Your task to perform on an android device: Open Reddit.com Image 0: 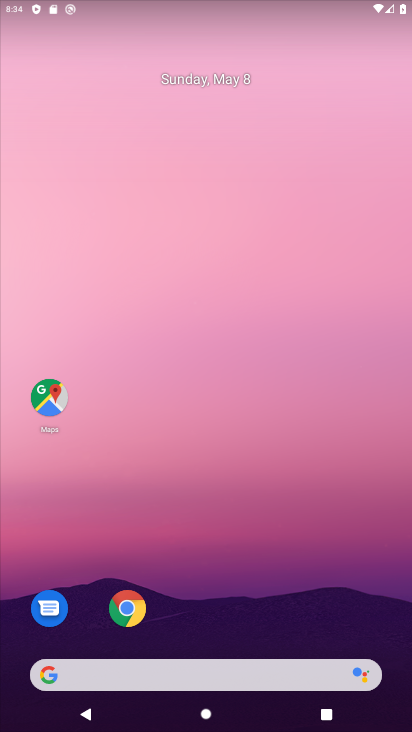
Step 0: click (126, 609)
Your task to perform on an android device: Open Reddit.com Image 1: 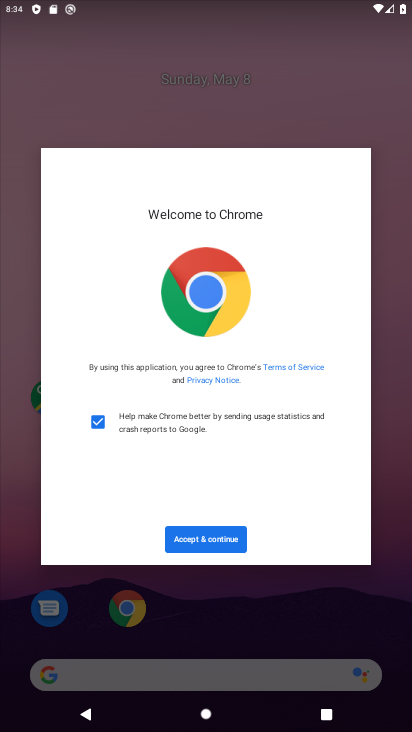
Step 1: click (194, 545)
Your task to perform on an android device: Open Reddit.com Image 2: 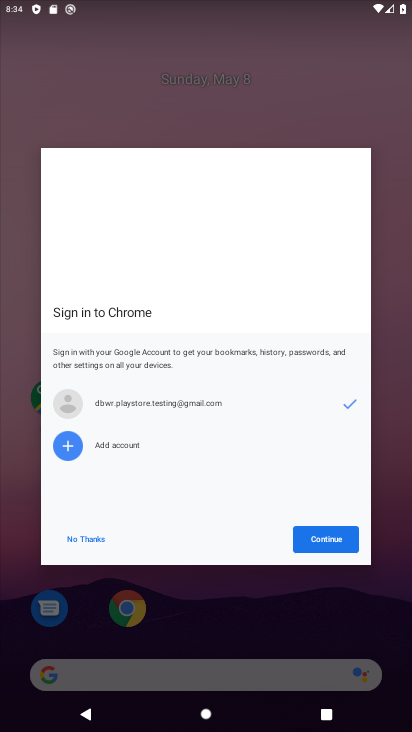
Step 2: click (329, 542)
Your task to perform on an android device: Open Reddit.com Image 3: 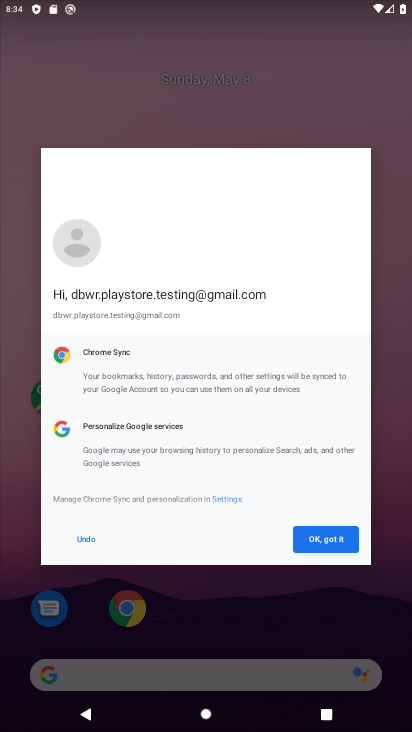
Step 3: click (329, 542)
Your task to perform on an android device: Open Reddit.com Image 4: 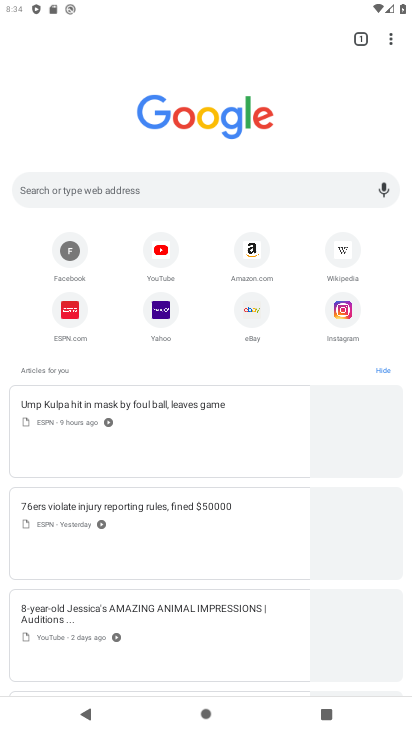
Step 4: click (156, 182)
Your task to perform on an android device: Open Reddit.com Image 5: 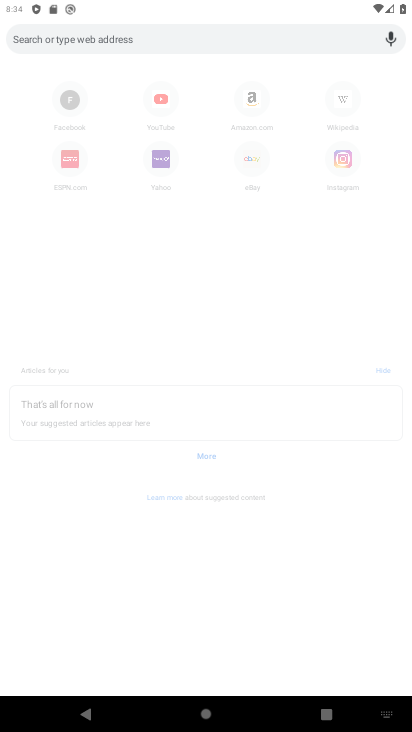
Step 5: type "Reddit.com"
Your task to perform on an android device: Open Reddit.com Image 6: 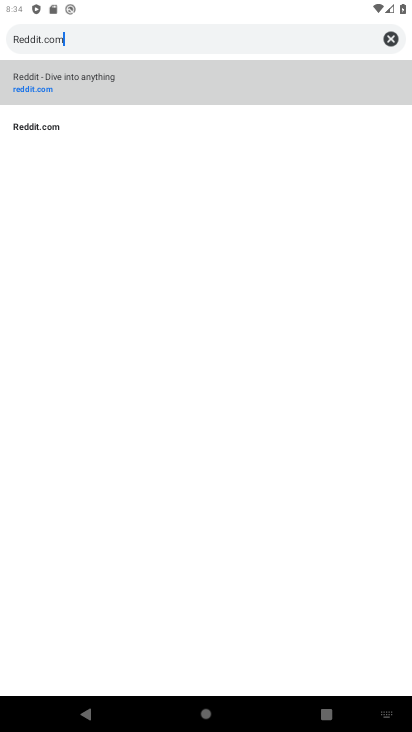
Step 6: type ""
Your task to perform on an android device: Open Reddit.com Image 7: 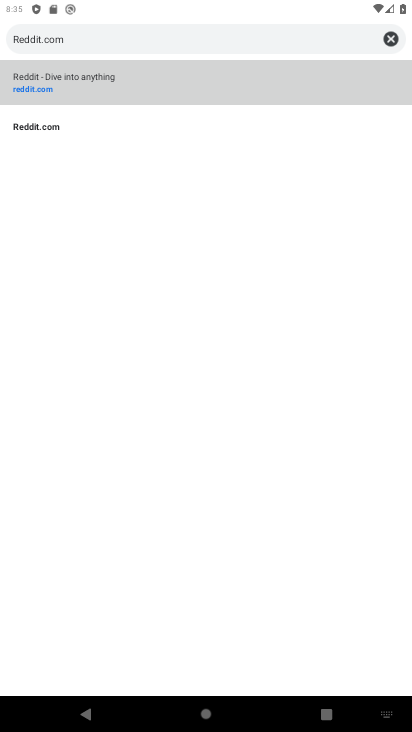
Step 7: click (49, 130)
Your task to perform on an android device: Open Reddit.com Image 8: 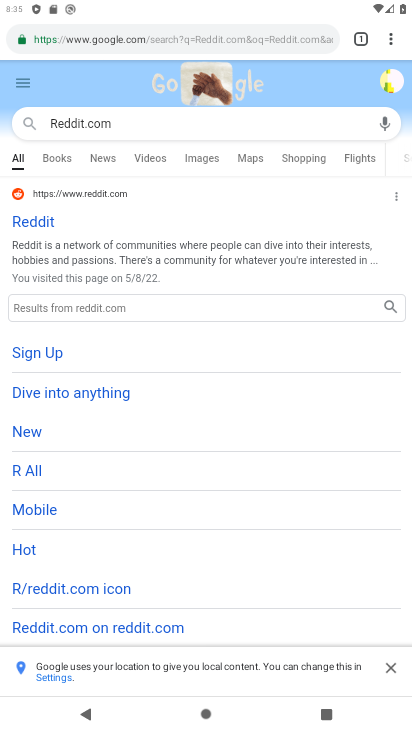
Step 8: click (38, 216)
Your task to perform on an android device: Open Reddit.com Image 9: 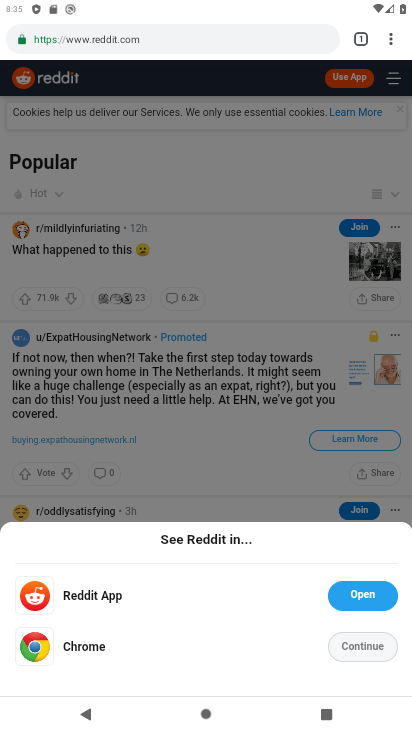
Step 9: click (374, 592)
Your task to perform on an android device: Open Reddit.com Image 10: 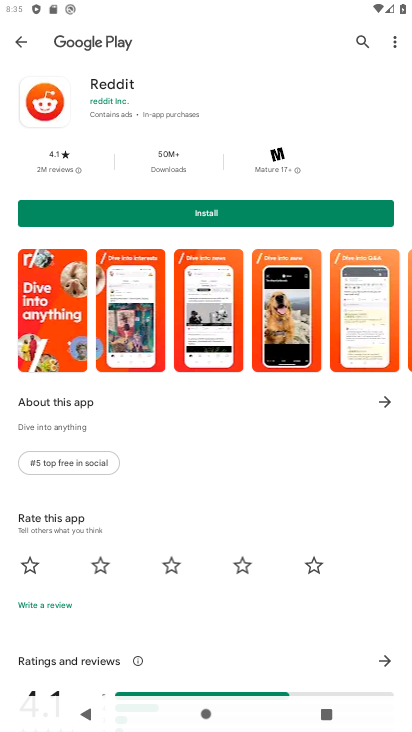
Step 10: task complete